Your task to perform on an android device: Go to calendar. Show me events next week Image 0: 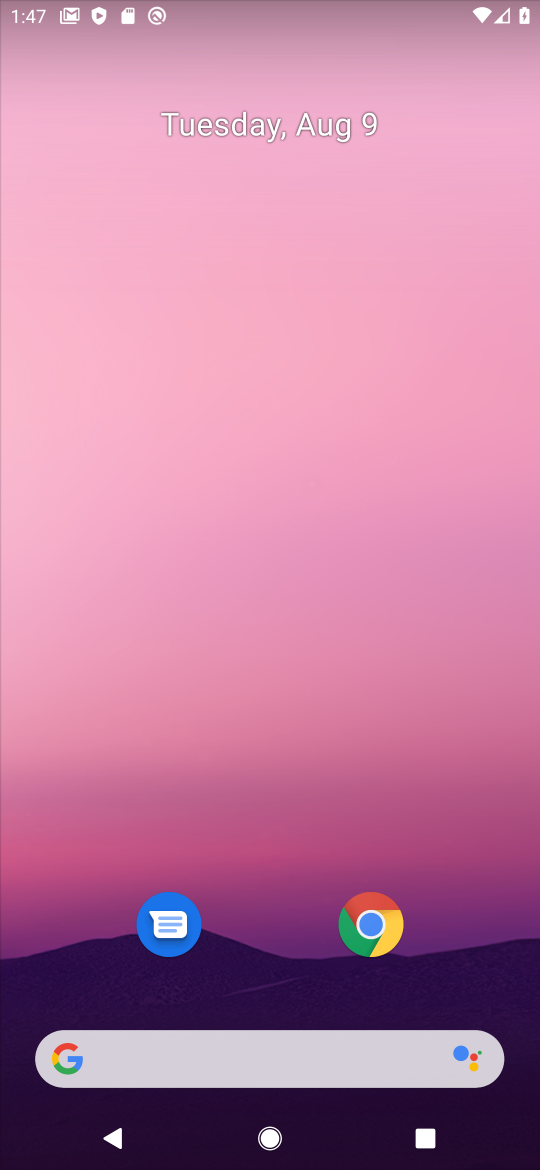
Step 0: drag from (518, 786) to (365, 89)
Your task to perform on an android device: Go to calendar. Show me events next week Image 1: 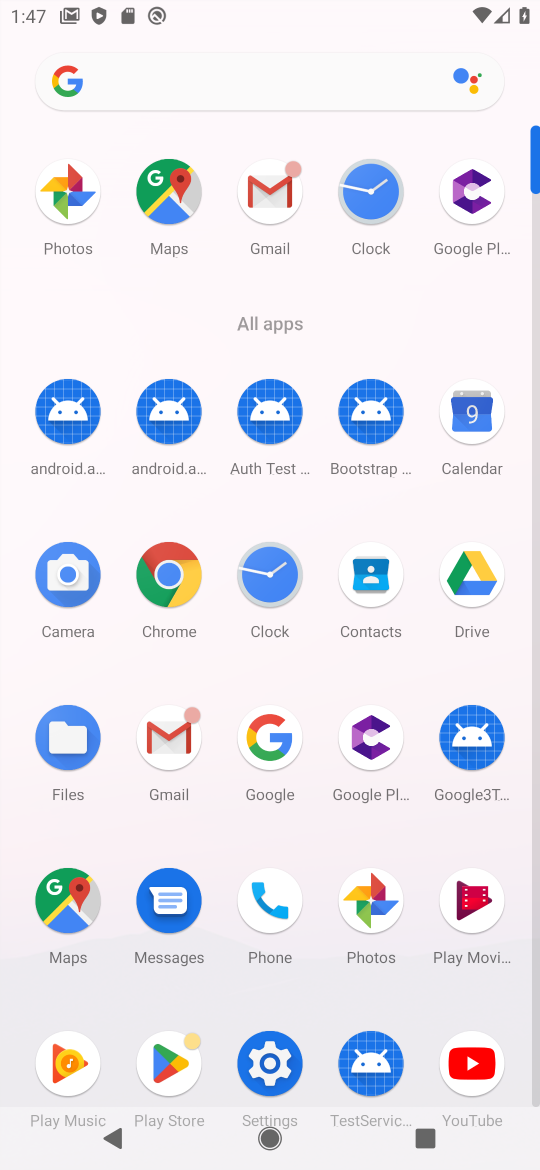
Step 1: click (480, 409)
Your task to perform on an android device: Go to calendar. Show me events next week Image 2: 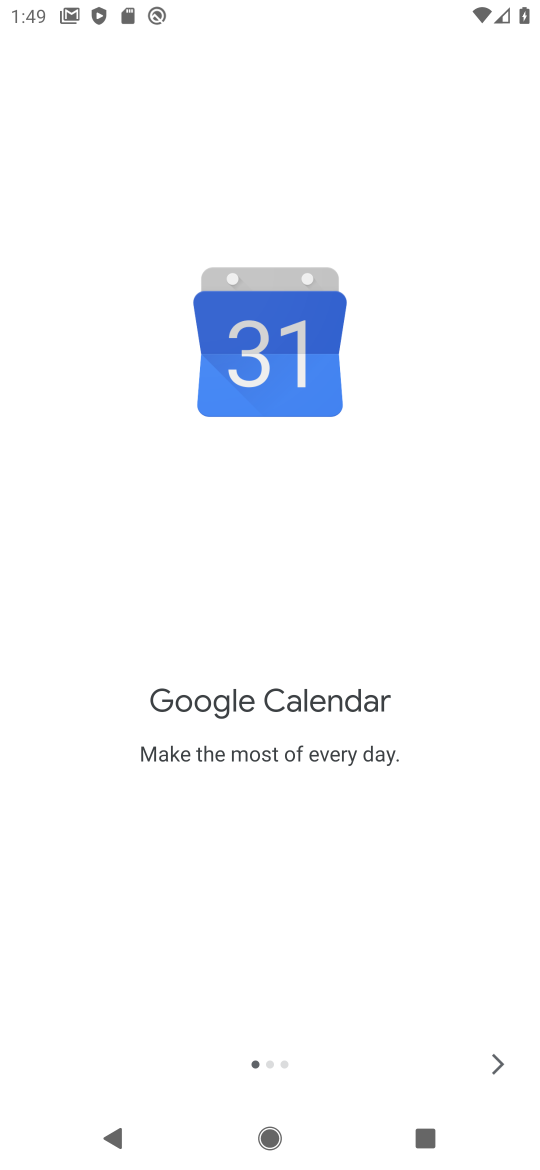
Step 2: click (488, 1077)
Your task to perform on an android device: Go to calendar. Show me events next week Image 3: 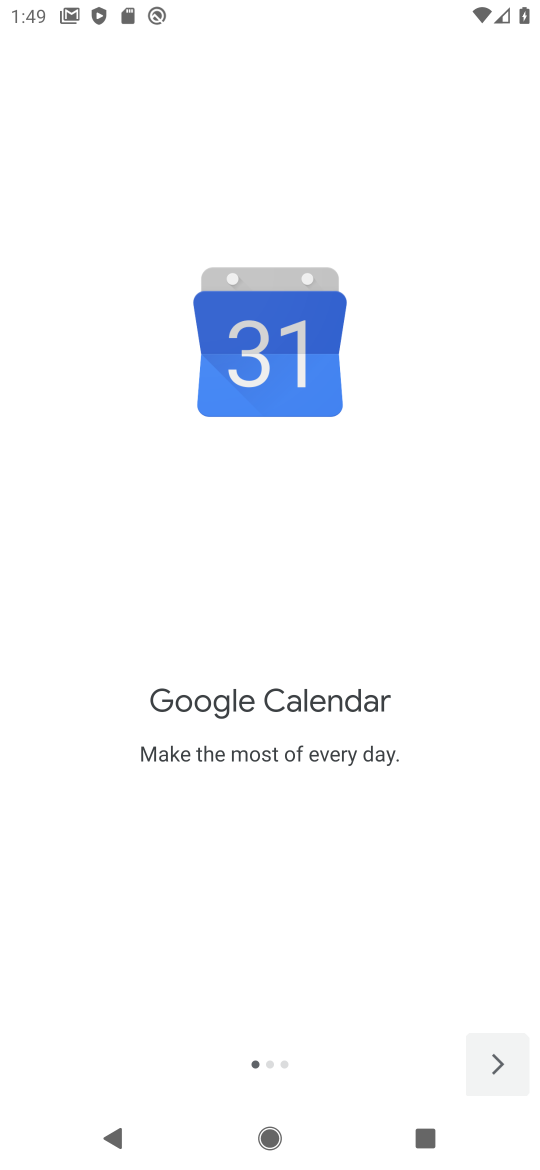
Step 3: click (488, 1076)
Your task to perform on an android device: Go to calendar. Show me events next week Image 4: 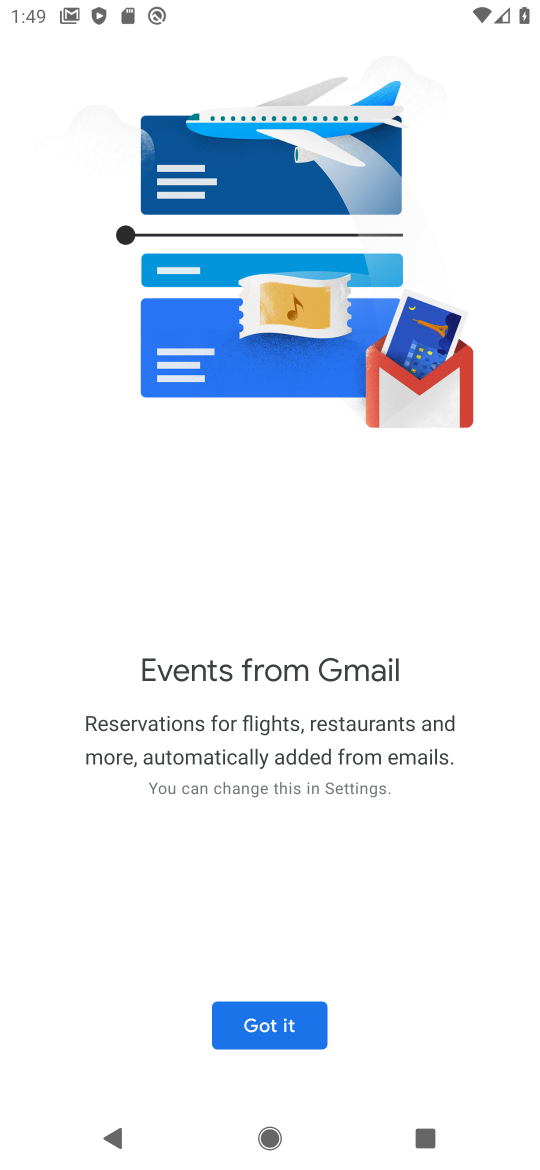
Step 4: click (488, 1076)
Your task to perform on an android device: Go to calendar. Show me events next week Image 5: 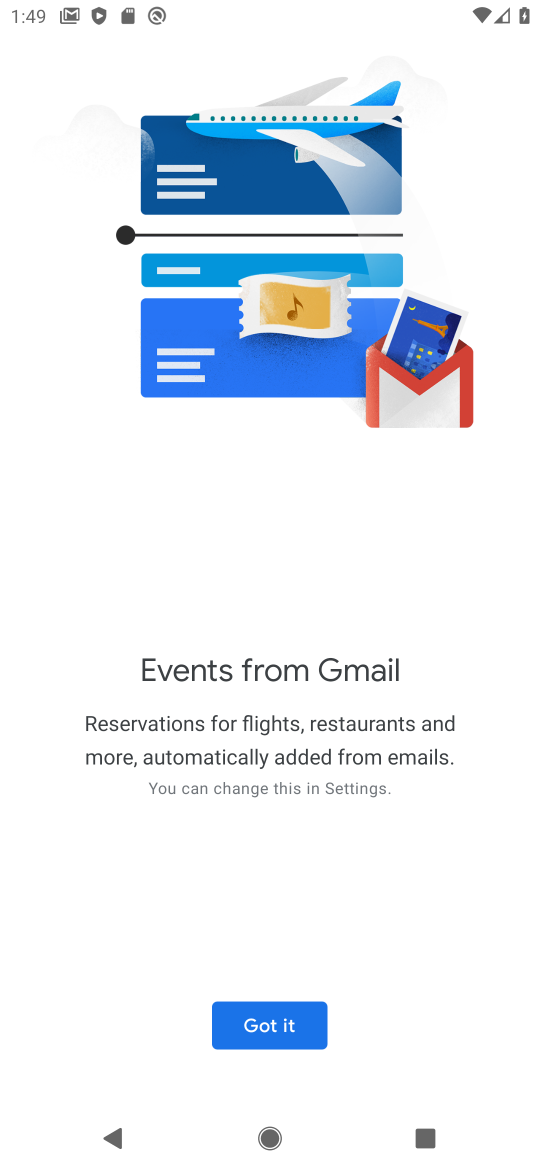
Step 5: click (297, 1019)
Your task to perform on an android device: Go to calendar. Show me events next week Image 6: 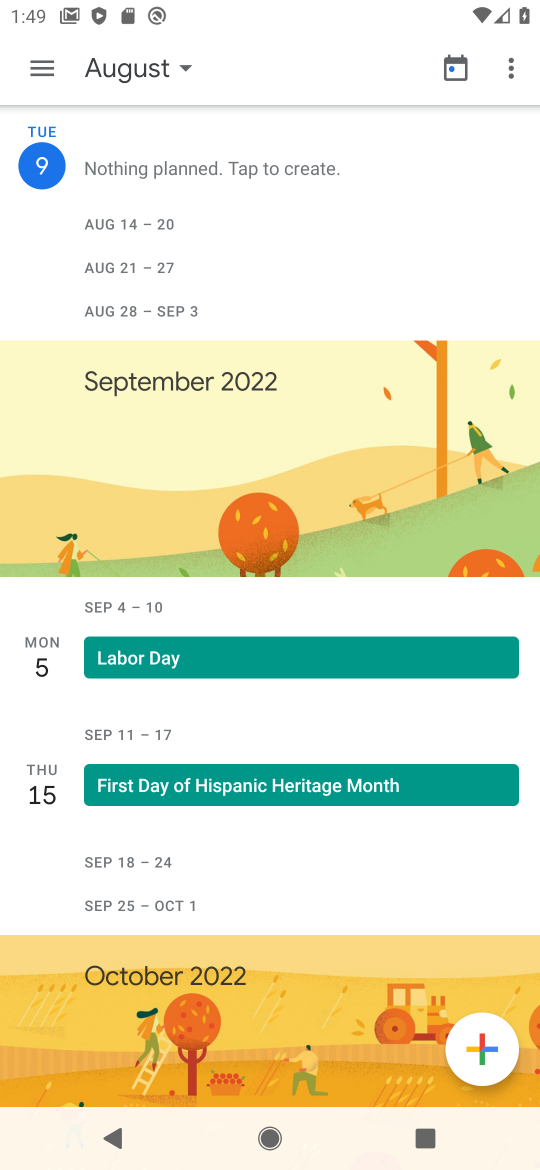
Step 6: click (183, 63)
Your task to perform on an android device: Go to calendar. Show me events next week Image 7: 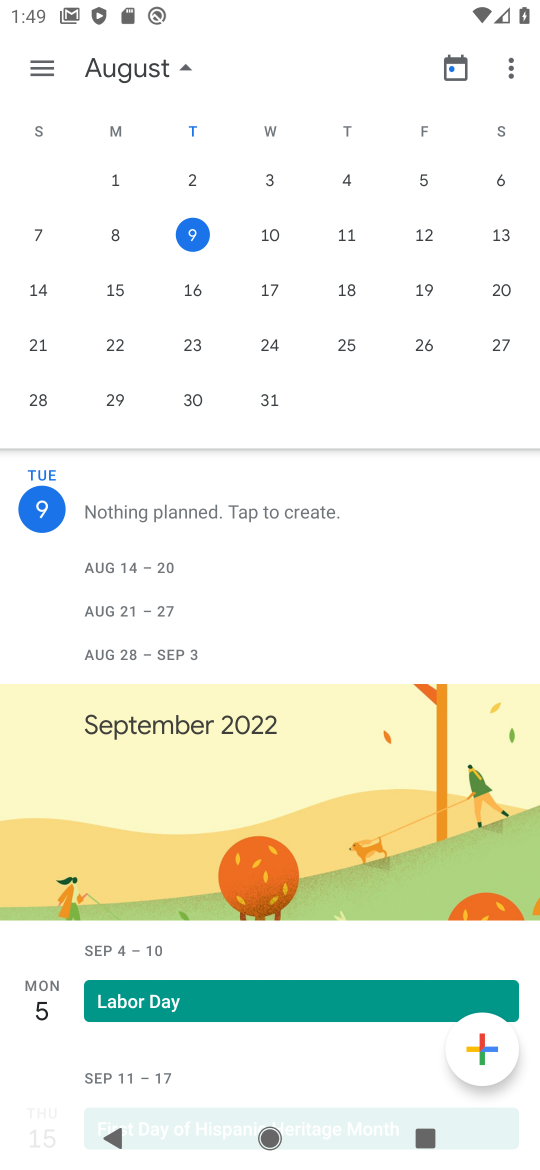
Step 7: click (196, 286)
Your task to perform on an android device: Go to calendar. Show me events next week Image 8: 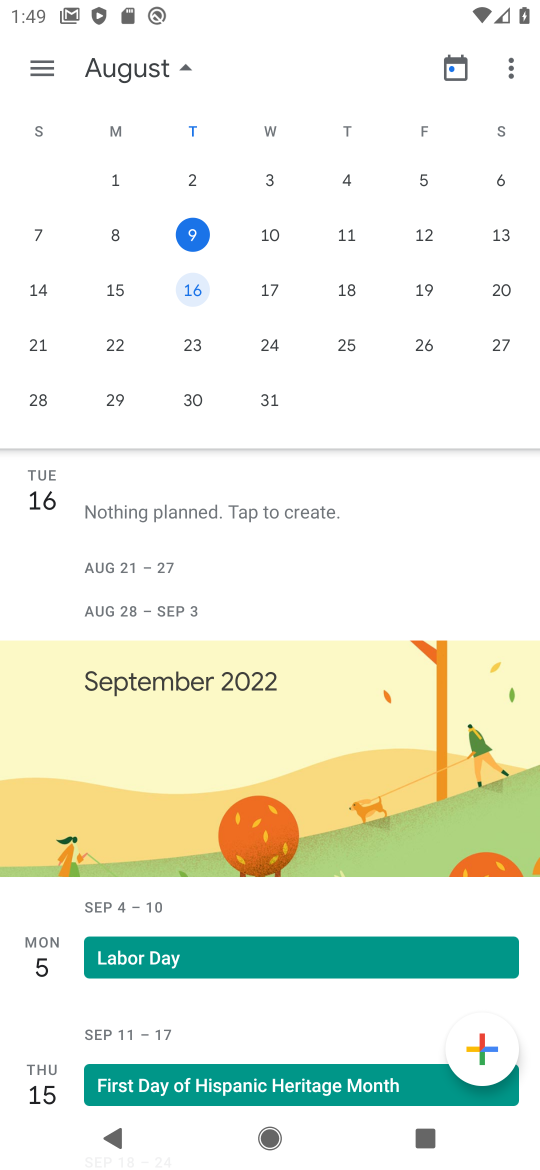
Step 8: click (46, 62)
Your task to perform on an android device: Go to calendar. Show me events next week Image 9: 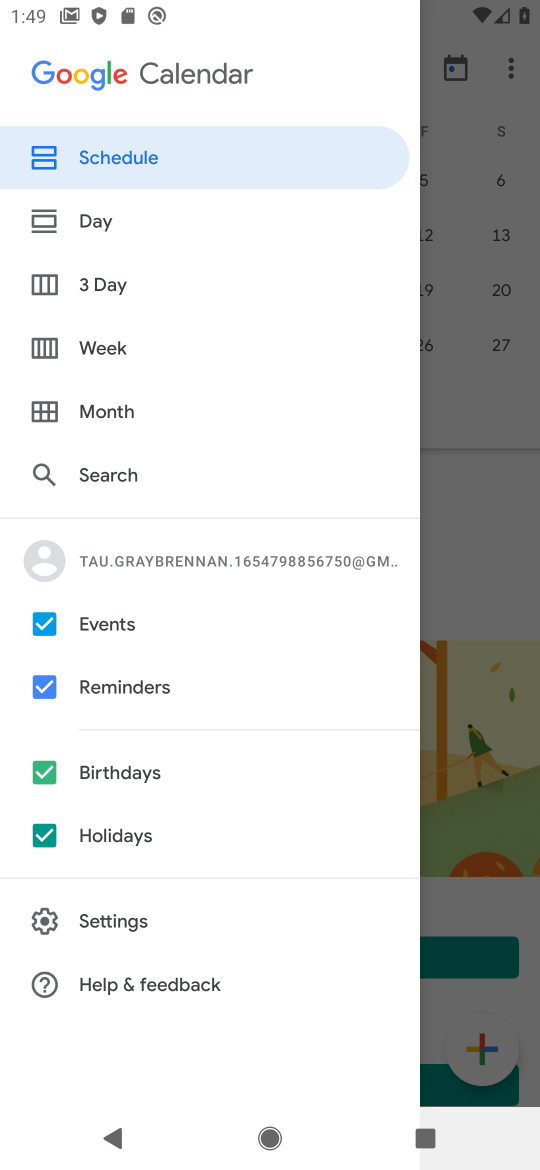
Step 9: click (80, 347)
Your task to perform on an android device: Go to calendar. Show me events next week Image 10: 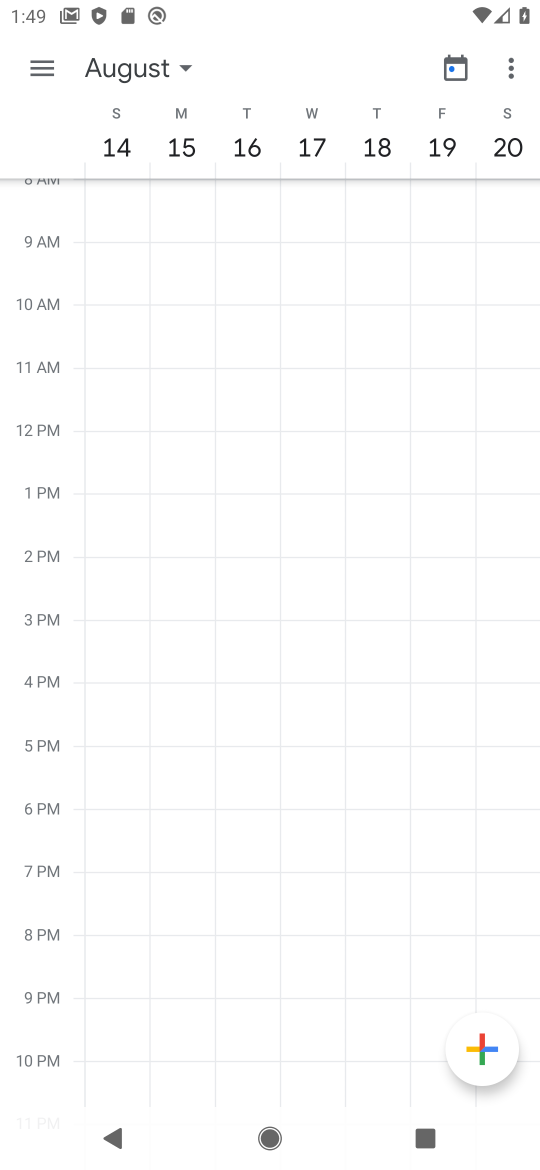
Step 10: click (38, 72)
Your task to perform on an android device: Go to calendar. Show me events next week Image 11: 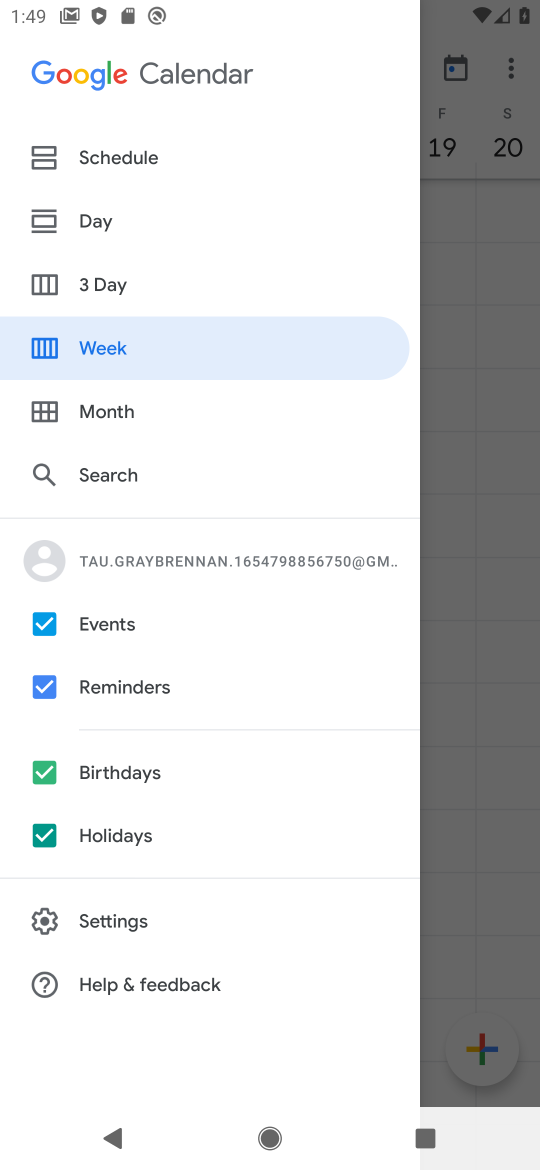
Step 11: click (97, 152)
Your task to perform on an android device: Go to calendar. Show me events next week Image 12: 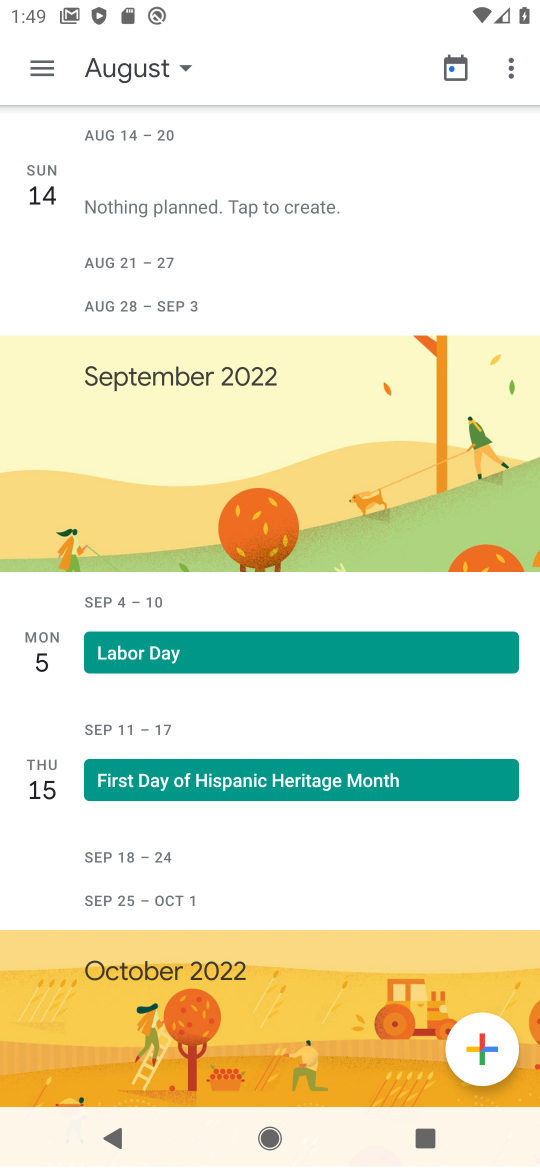
Step 12: task complete